Your task to perform on an android device: open the mobile data screen to see how much data has been used Image 0: 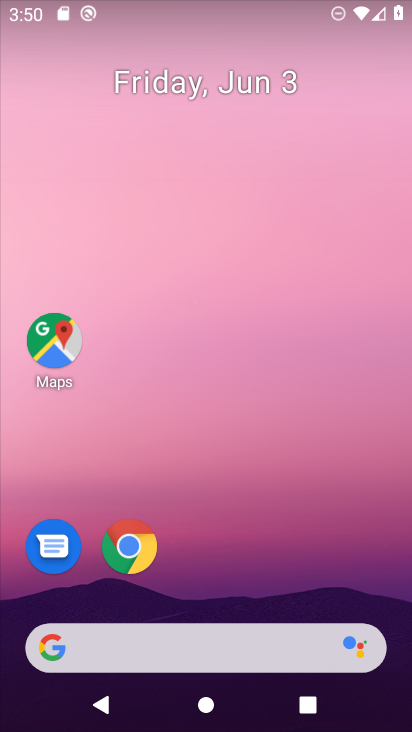
Step 0: drag from (234, 567) to (271, 6)
Your task to perform on an android device: open the mobile data screen to see how much data has been used Image 1: 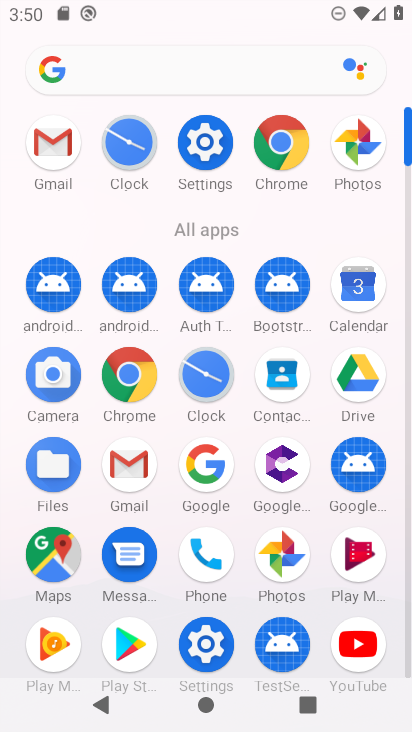
Step 1: click (202, 137)
Your task to perform on an android device: open the mobile data screen to see how much data has been used Image 2: 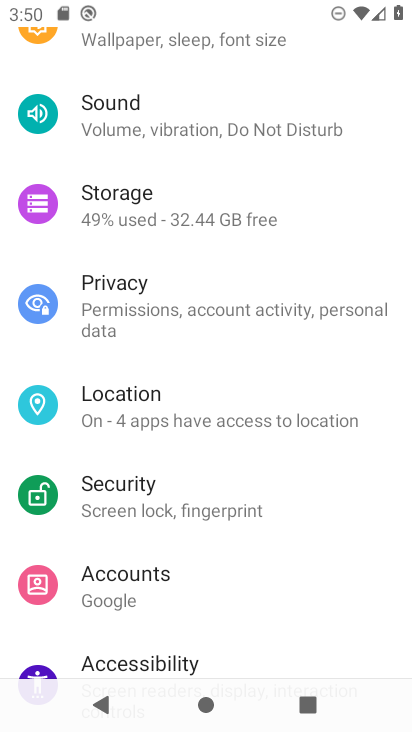
Step 2: drag from (195, 174) to (165, 669)
Your task to perform on an android device: open the mobile data screen to see how much data has been used Image 3: 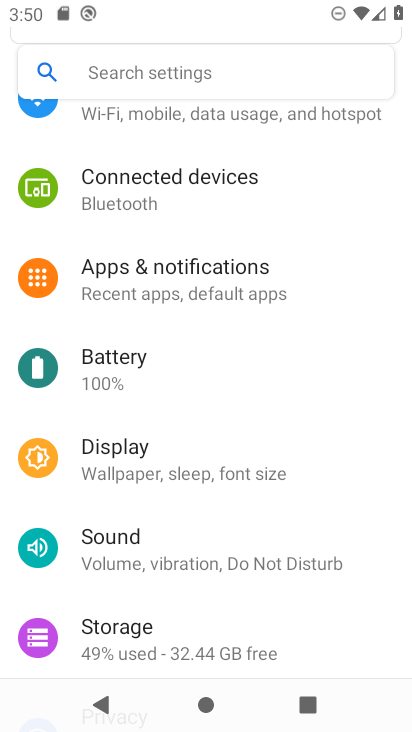
Step 3: drag from (187, 192) to (223, 459)
Your task to perform on an android device: open the mobile data screen to see how much data has been used Image 4: 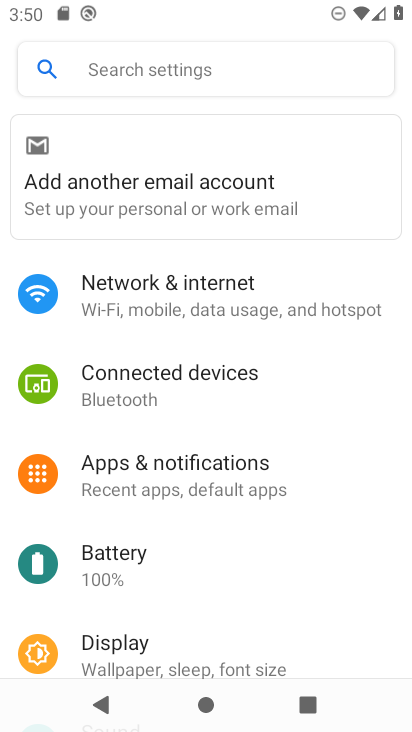
Step 4: click (252, 283)
Your task to perform on an android device: open the mobile data screen to see how much data has been used Image 5: 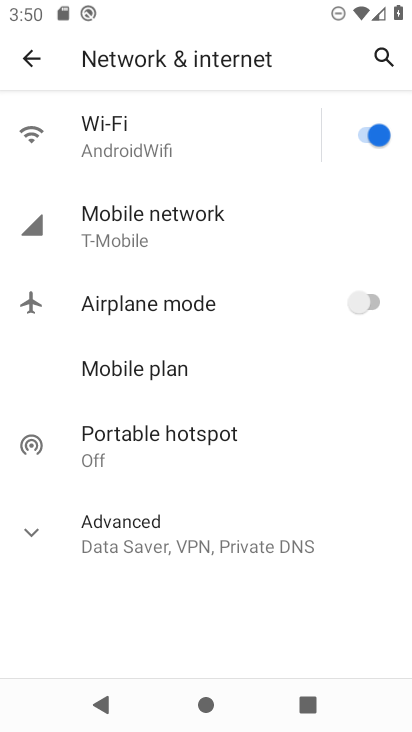
Step 5: click (255, 228)
Your task to perform on an android device: open the mobile data screen to see how much data has been used Image 6: 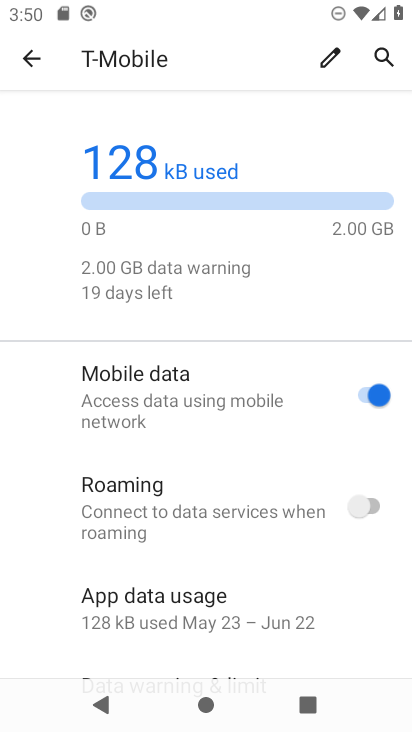
Step 6: task complete